Your task to perform on an android device: Open maps Image 0: 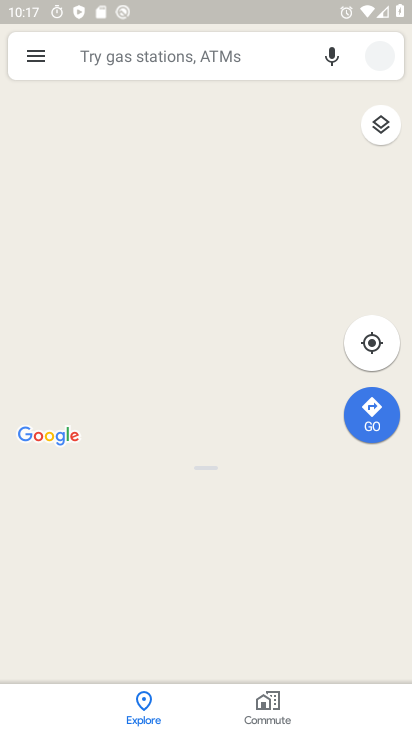
Step 0: press home button
Your task to perform on an android device: Open maps Image 1: 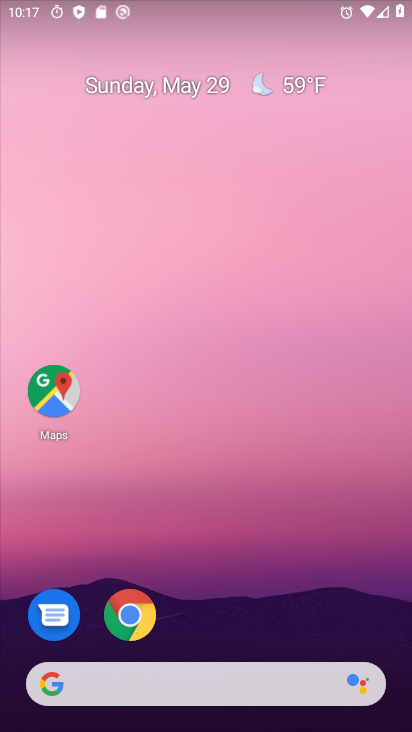
Step 1: click (54, 389)
Your task to perform on an android device: Open maps Image 2: 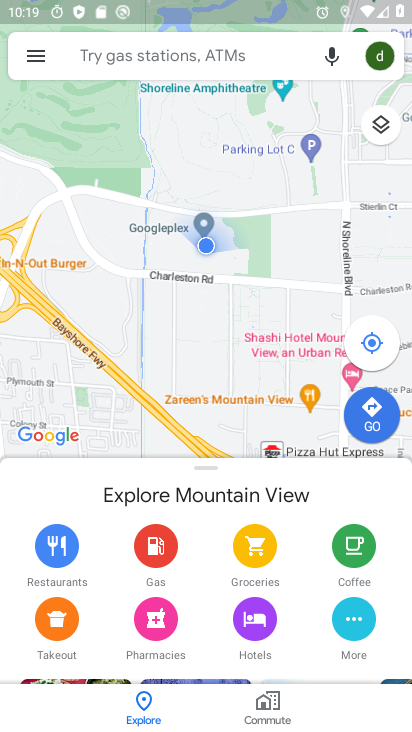
Step 2: task complete